Your task to perform on an android device: toggle priority inbox in the gmail app Image 0: 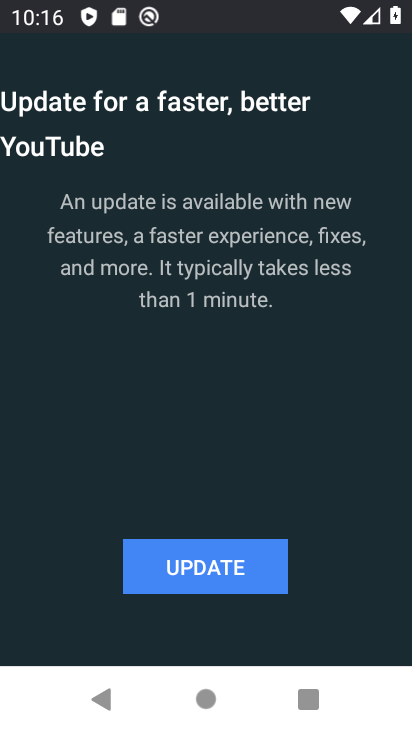
Step 0: press home button
Your task to perform on an android device: toggle priority inbox in the gmail app Image 1: 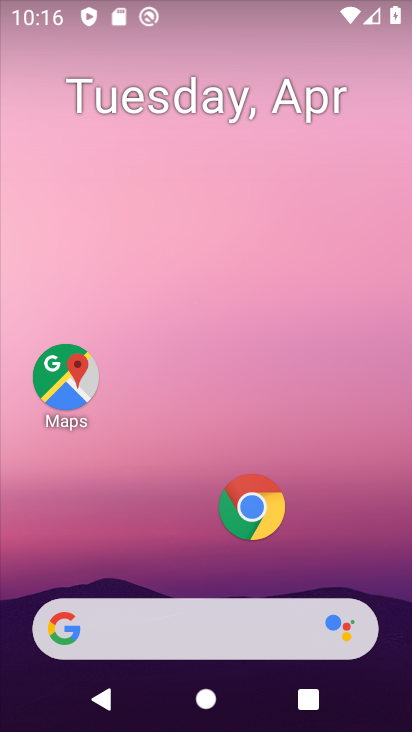
Step 1: drag from (49, 540) to (187, 267)
Your task to perform on an android device: toggle priority inbox in the gmail app Image 2: 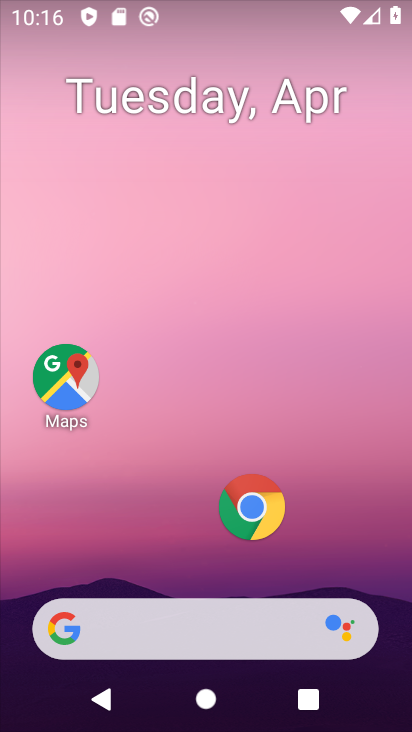
Step 2: drag from (80, 424) to (270, 74)
Your task to perform on an android device: toggle priority inbox in the gmail app Image 3: 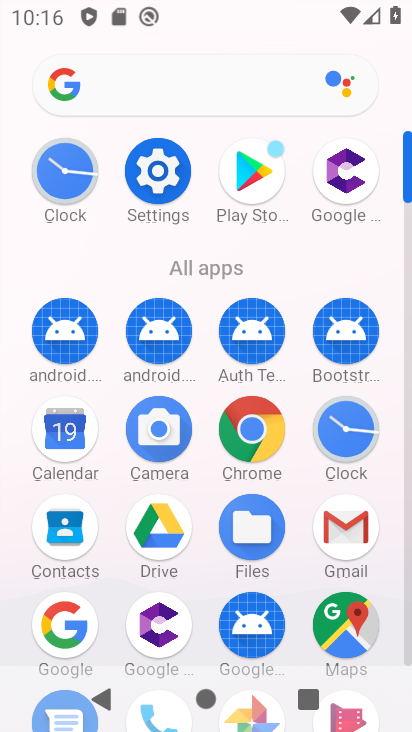
Step 3: click (328, 526)
Your task to perform on an android device: toggle priority inbox in the gmail app Image 4: 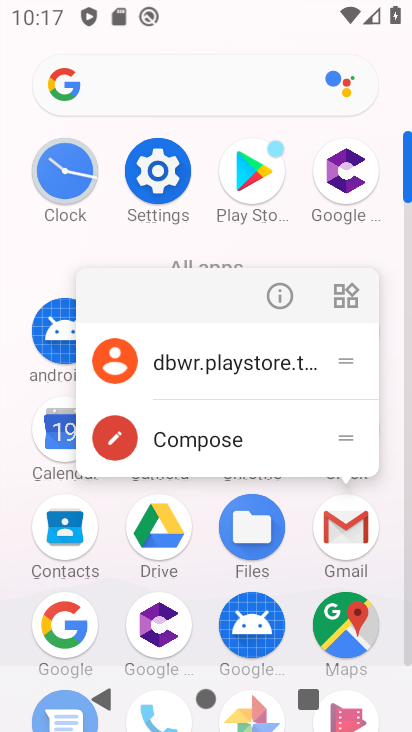
Step 4: click (338, 546)
Your task to perform on an android device: toggle priority inbox in the gmail app Image 5: 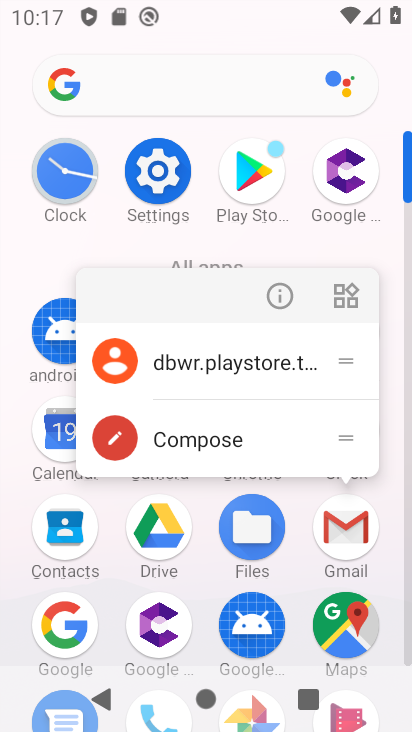
Step 5: click (338, 545)
Your task to perform on an android device: toggle priority inbox in the gmail app Image 6: 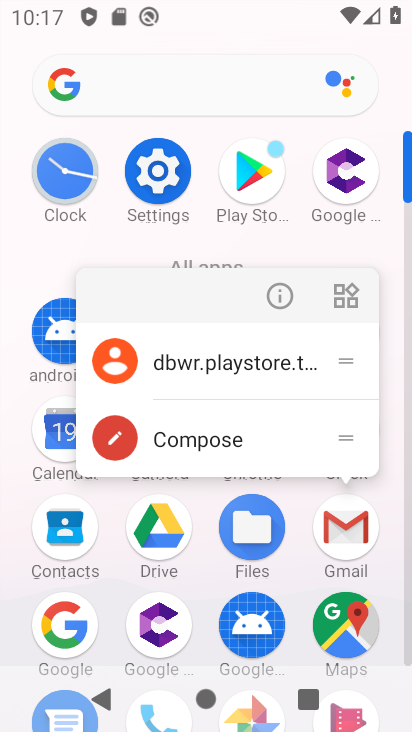
Step 6: click (337, 551)
Your task to perform on an android device: toggle priority inbox in the gmail app Image 7: 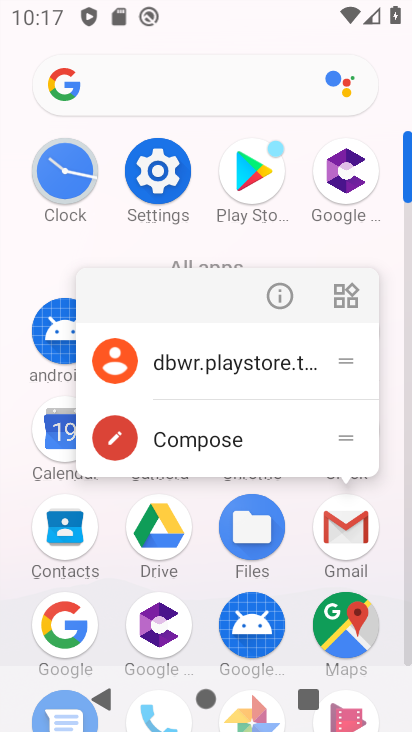
Step 7: click (337, 551)
Your task to perform on an android device: toggle priority inbox in the gmail app Image 8: 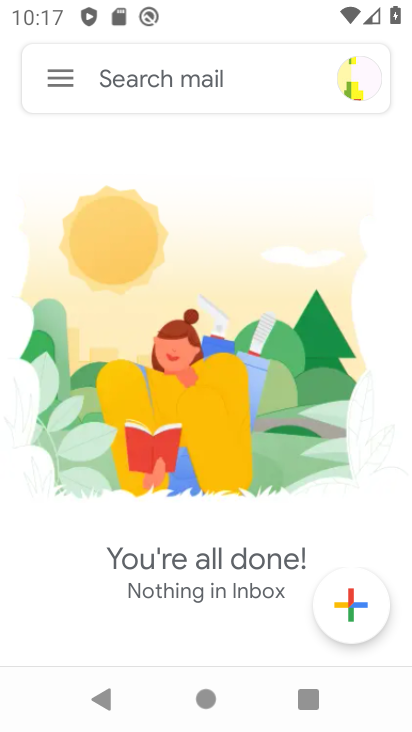
Step 8: click (69, 84)
Your task to perform on an android device: toggle priority inbox in the gmail app Image 9: 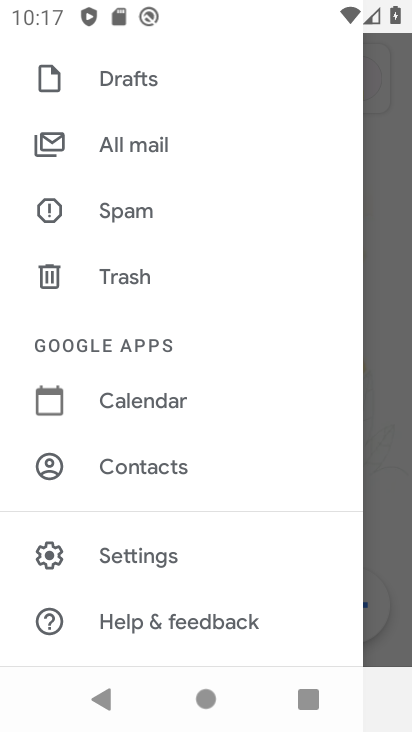
Step 9: click (102, 560)
Your task to perform on an android device: toggle priority inbox in the gmail app Image 10: 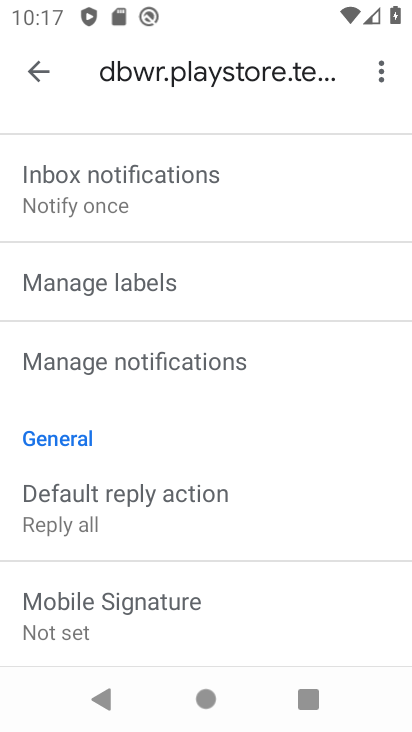
Step 10: drag from (176, 655) to (238, 341)
Your task to perform on an android device: toggle priority inbox in the gmail app Image 11: 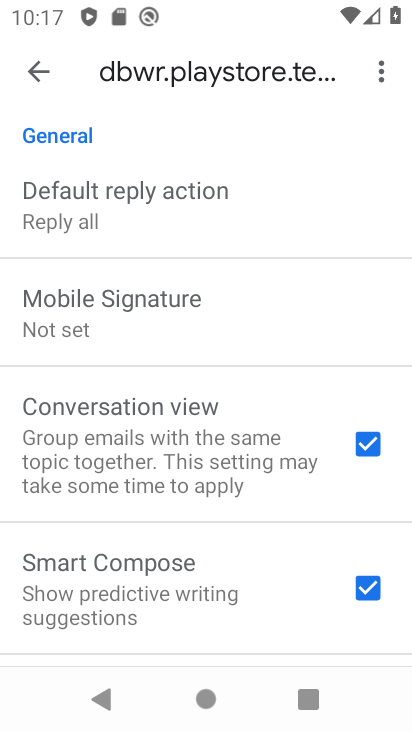
Step 11: drag from (214, 556) to (259, 260)
Your task to perform on an android device: toggle priority inbox in the gmail app Image 12: 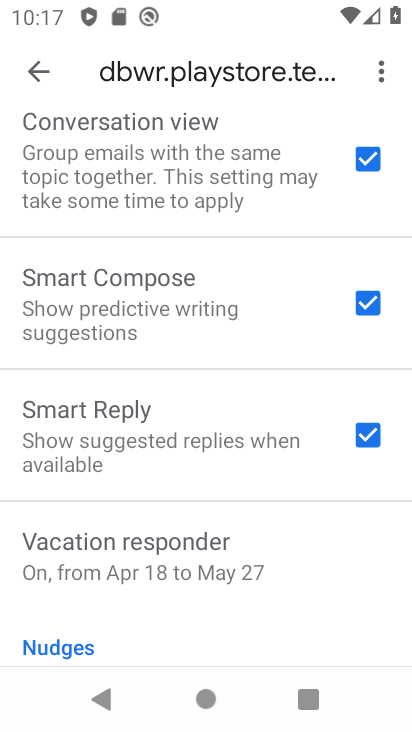
Step 12: drag from (168, 409) to (78, 618)
Your task to perform on an android device: toggle priority inbox in the gmail app Image 13: 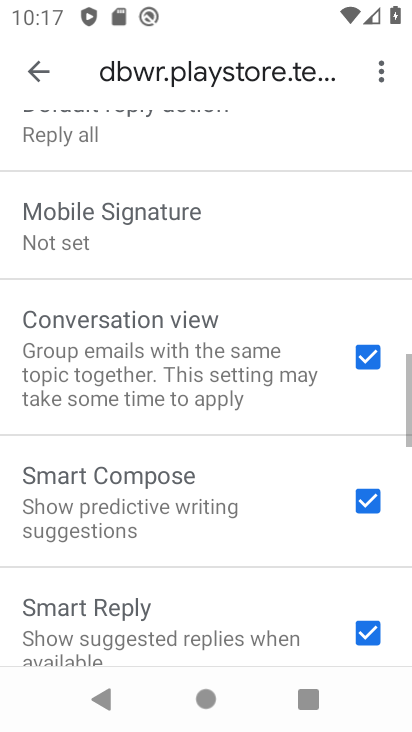
Step 13: drag from (93, 222) to (5, 562)
Your task to perform on an android device: toggle priority inbox in the gmail app Image 14: 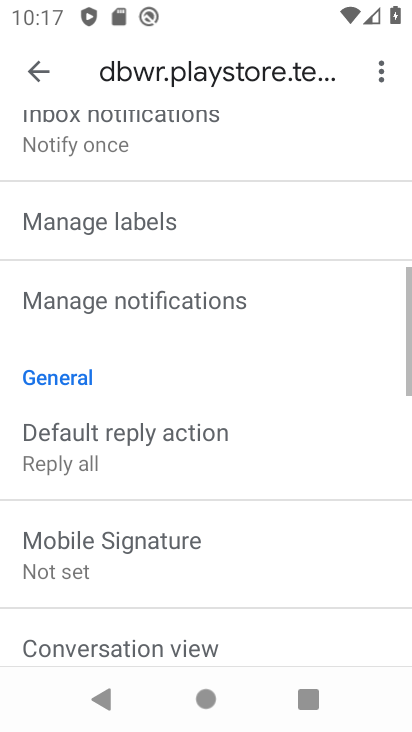
Step 14: drag from (279, 174) to (181, 532)
Your task to perform on an android device: toggle priority inbox in the gmail app Image 15: 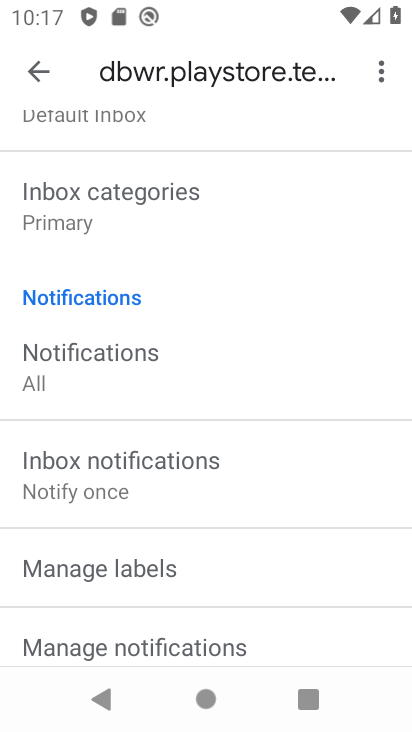
Step 15: drag from (279, 257) to (218, 503)
Your task to perform on an android device: toggle priority inbox in the gmail app Image 16: 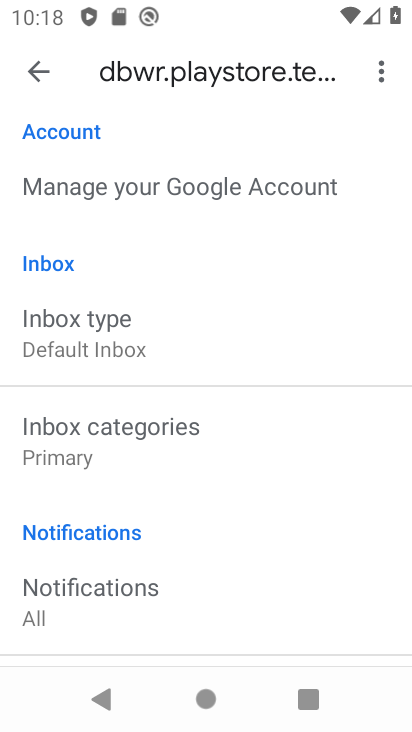
Step 16: click (170, 322)
Your task to perform on an android device: toggle priority inbox in the gmail app Image 17: 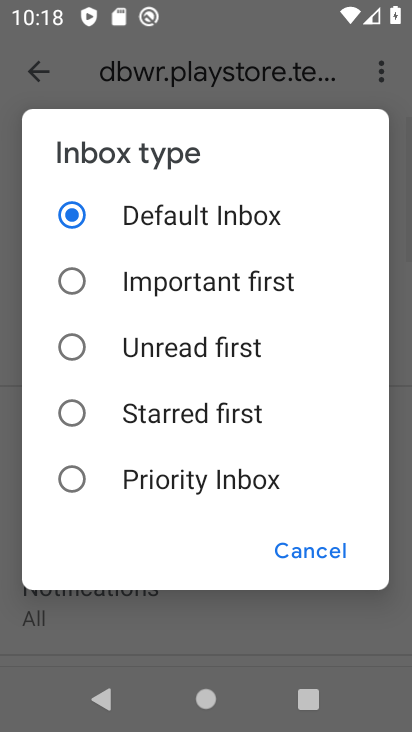
Step 17: click (129, 484)
Your task to perform on an android device: toggle priority inbox in the gmail app Image 18: 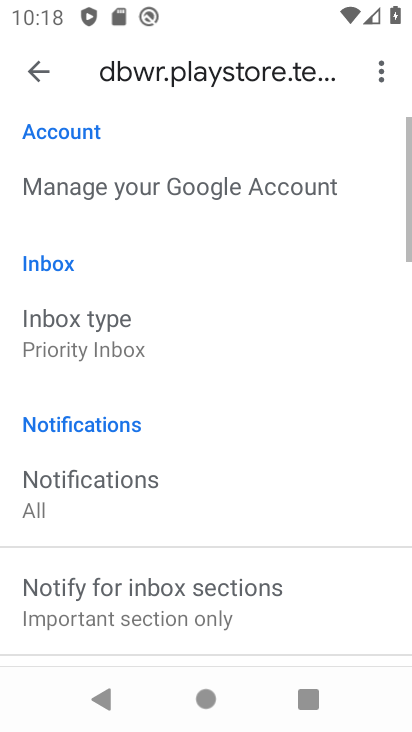
Step 18: task complete